Your task to perform on an android device: make emails show in primary in the gmail app Image 0: 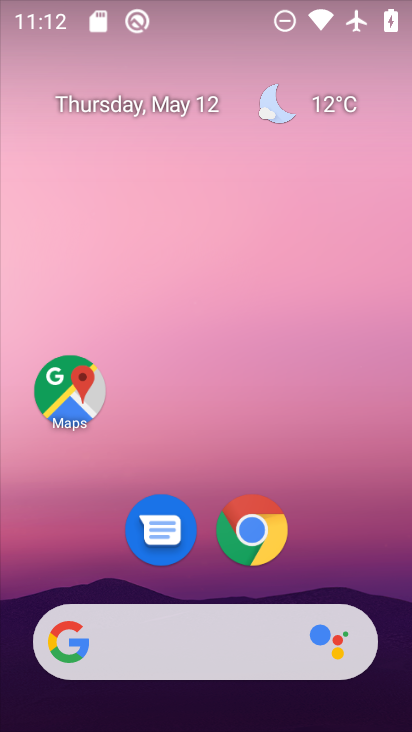
Step 0: drag from (198, 652) to (360, 69)
Your task to perform on an android device: make emails show in primary in the gmail app Image 1: 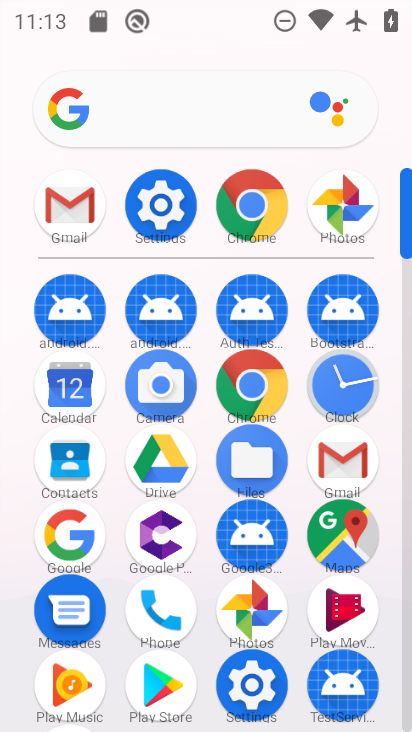
Step 1: click (81, 224)
Your task to perform on an android device: make emails show in primary in the gmail app Image 2: 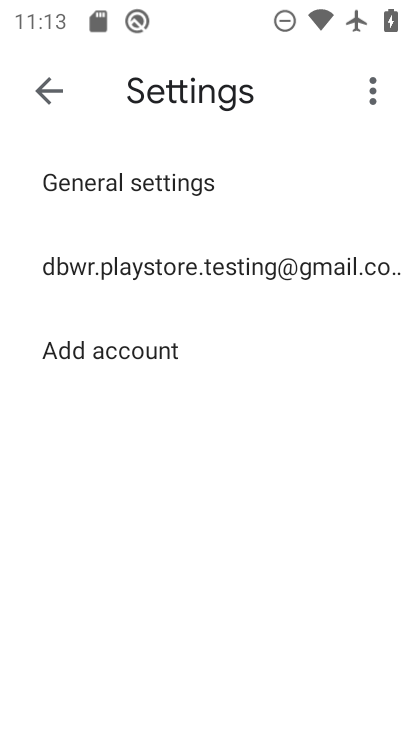
Step 2: click (268, 260)
Your task to perform on an android device: make emails show in primary in the gmail app Image 3: 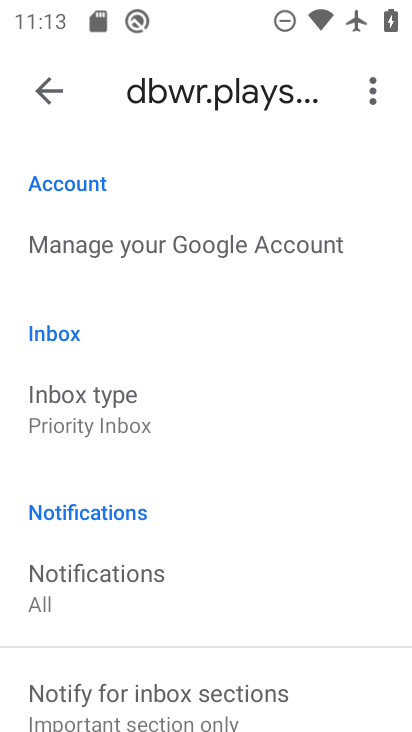
Step 3: task complete